Your task to perform on an android device: Open Google Chrome Image 0: 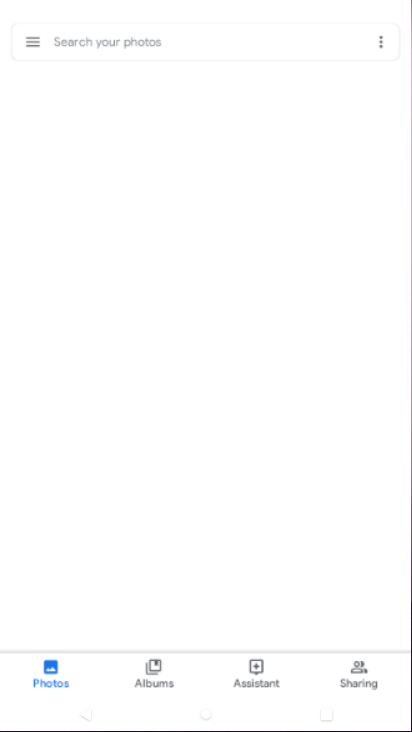
Step 0: press home button
Your task to perform on an android device: Open Google Chrome Image 1: 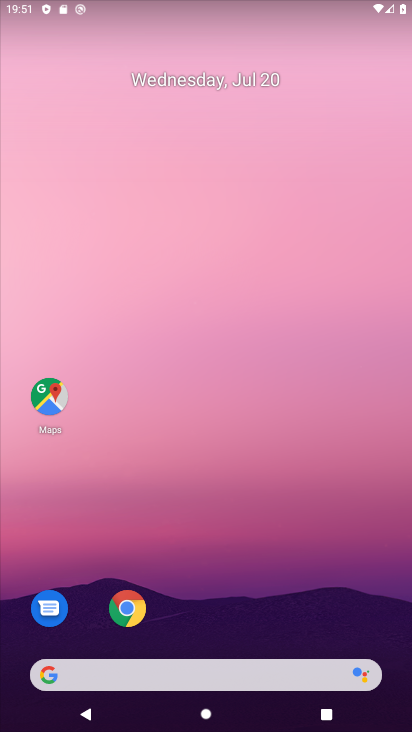
Step 1: drag from (349, 599) to (304, 64)
Your task to perform on an android device: Open Google Chrome Image 2: 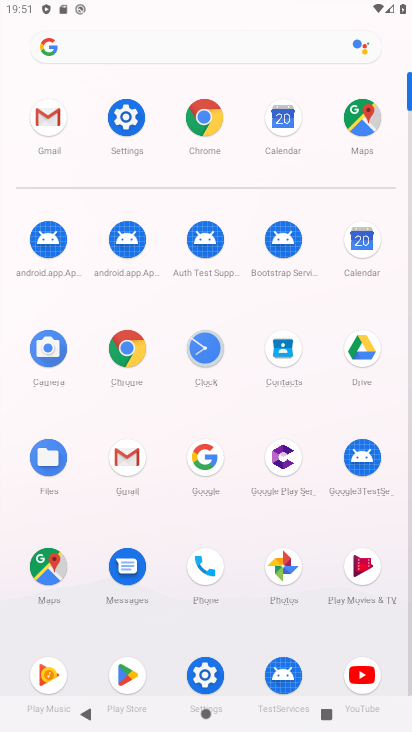
Step 2: click (206, 121)
Your task to perform on an android device: Open Google Chrome Image 3: 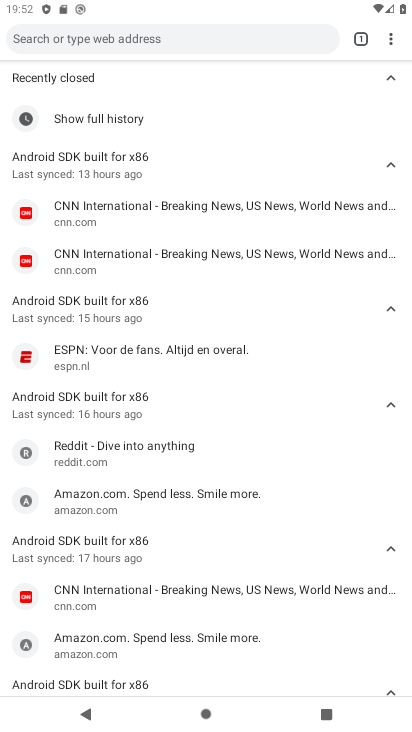
Step 3: task complete